Your task to perform on an android device: find snoozed emails in the gmail app Image 0: 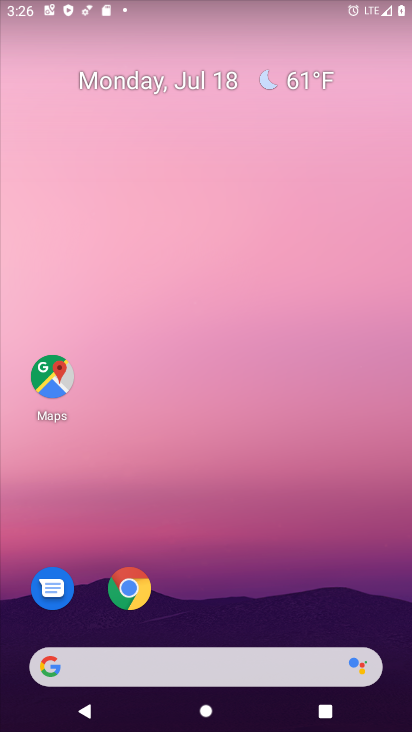
Step 0: drag from (379, 15) to (217, 720)
Your task to perform on an android device: find snoozed emails in the gmail app Image 1: 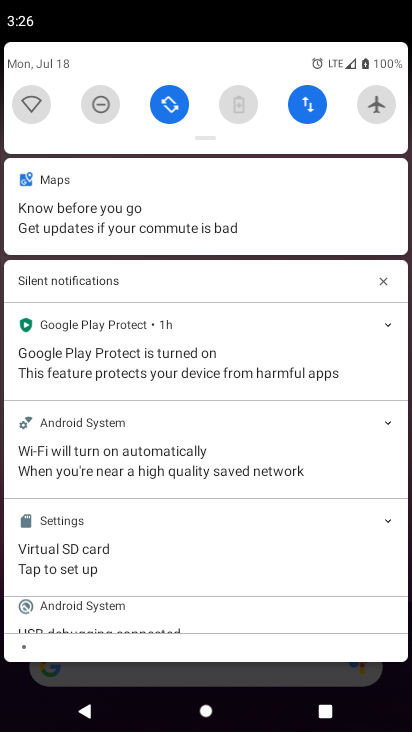
Step 1: drag from (200, 669) to (265, 52)
Your task to perform on an android device: find snoozed emails in the gmail app Image 2: 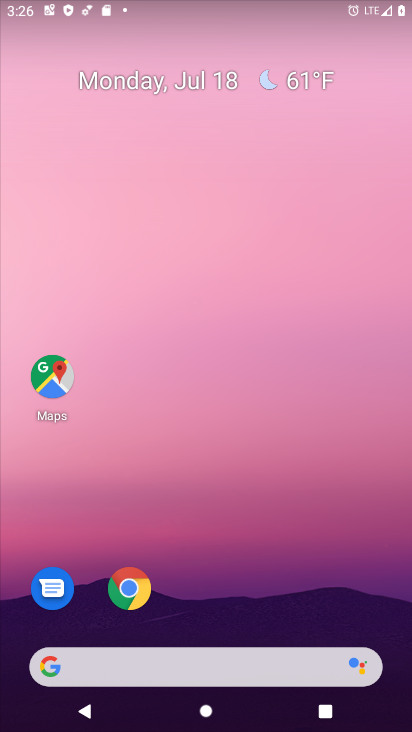
Step 2: drag from (223, 615) to (300, 52)
Your task to perform on an android device: find snoozed emails in the gmail app Image 3: 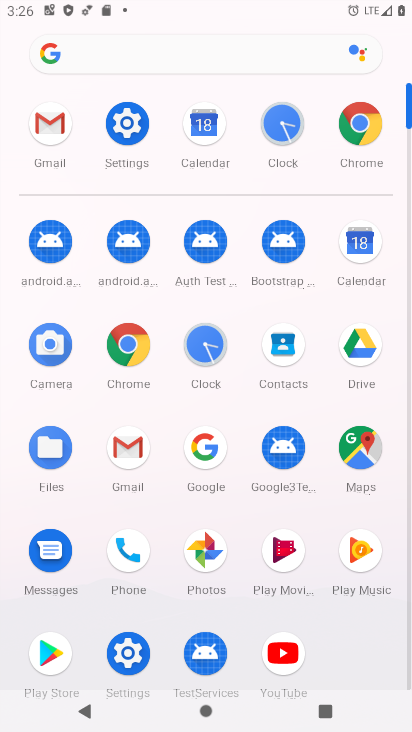
Step 3: click (54, 113)
Your task to perform on an android device: find snoozed emails in the gmail app Image 4: 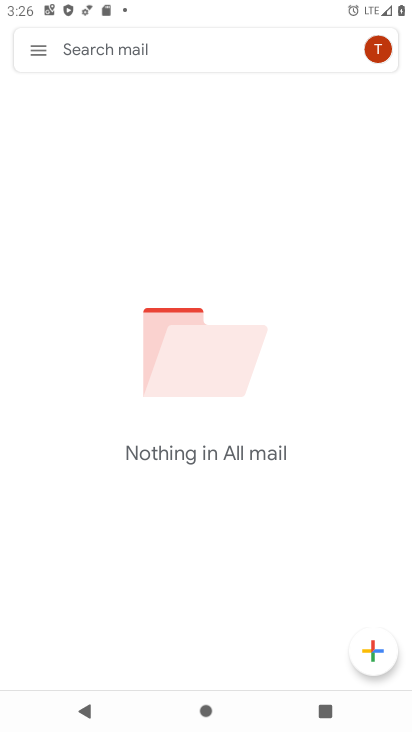
Step 4: click (35, 51)
Your task to perform on an android device: find snoozed emails in the gmail app Image 5: 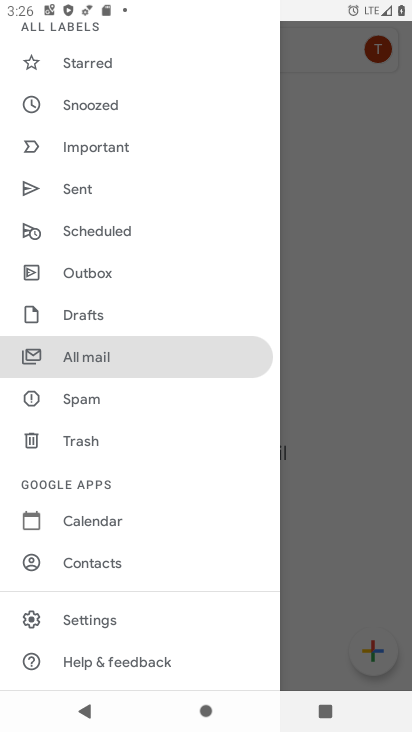
Step 5: click (109, 110)
Your task to perform on an android device: find snoozed emails in the gmail app Image 6: 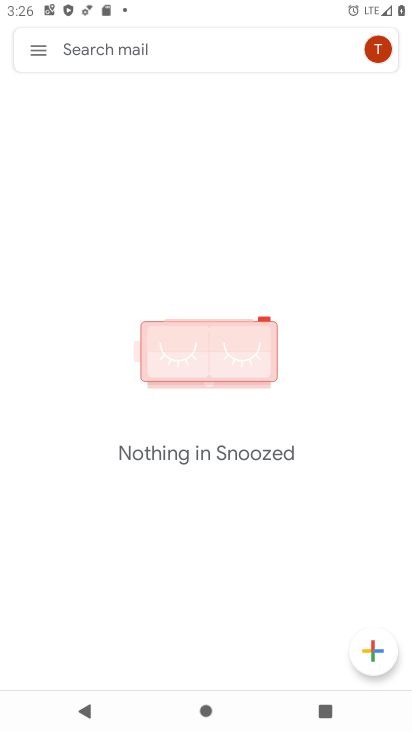
Step 6: task complete